Your task to perform on an android device: turn on location history Image 0: 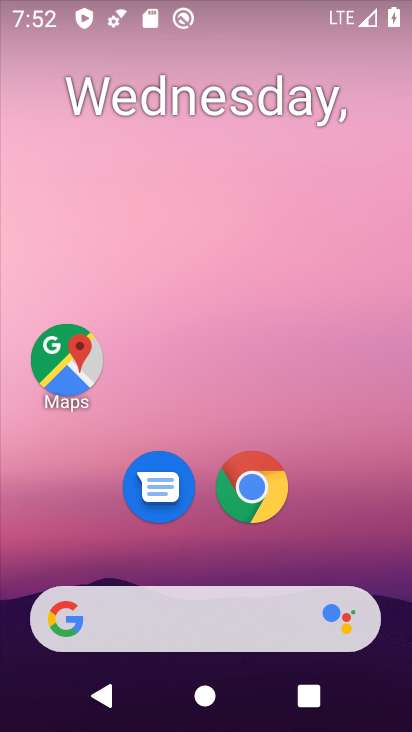
Step 0: click (62, 366)
Your task to perform on an android device: turn on location history Image 1: 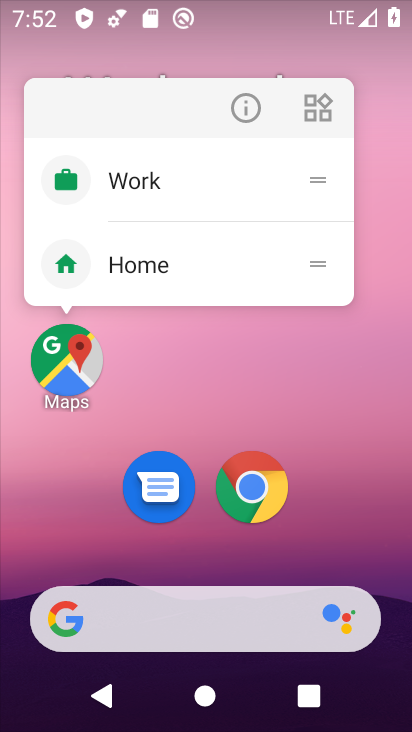
Step 1: click (62, 366)
Your task to perform on an android device: turn on location history Image 2: 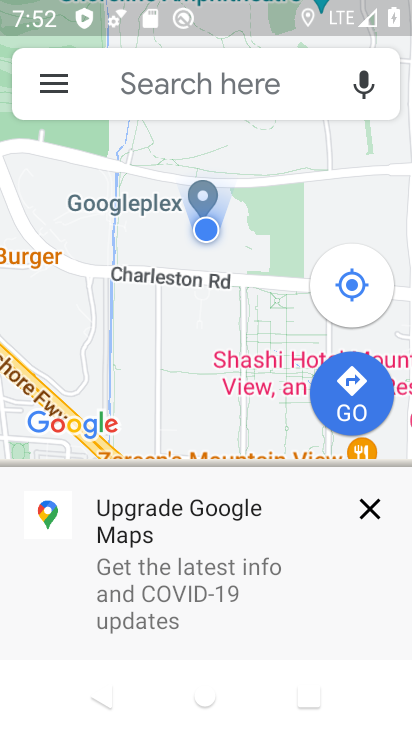
Step 2: click (42, 81)
Your task to perform on an android device: turn on location history Image 3: 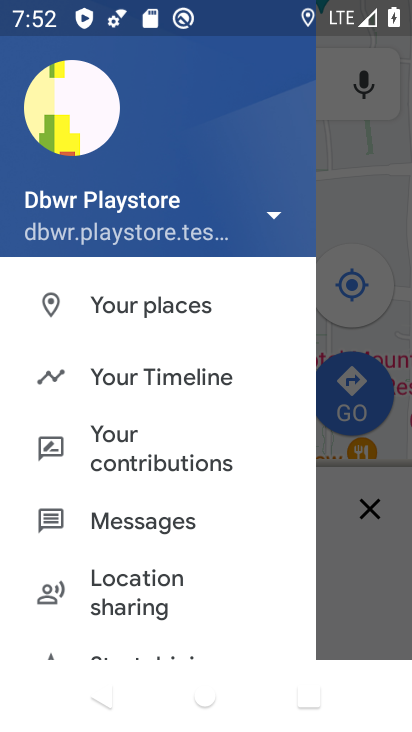
Step 3: click (125, 384)
Your task to perform on an android device: turn on location history Image 4: 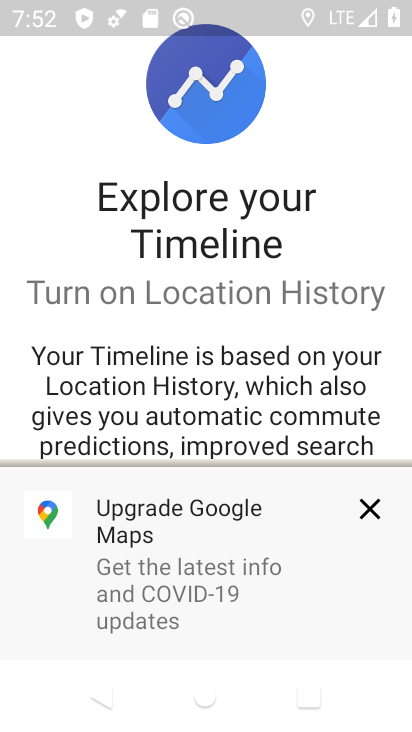
Step 4: click (361, 521)
Your task to perform on an android device: turn on location history Image 5: 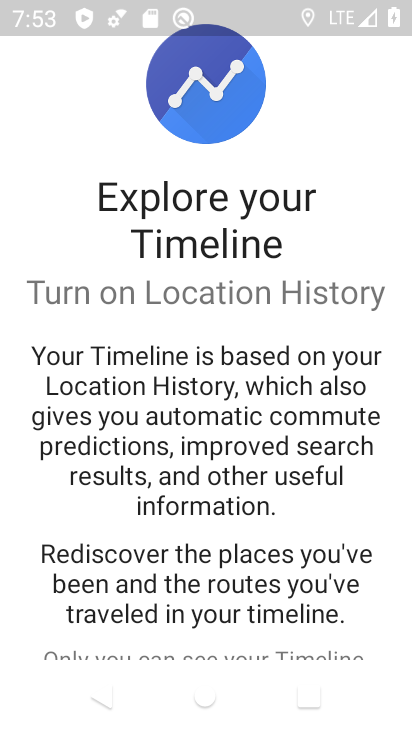
Step 5: drag from (249, 534) to (213, 153)
Your task to perform on an android device: turn on location history Image 6: 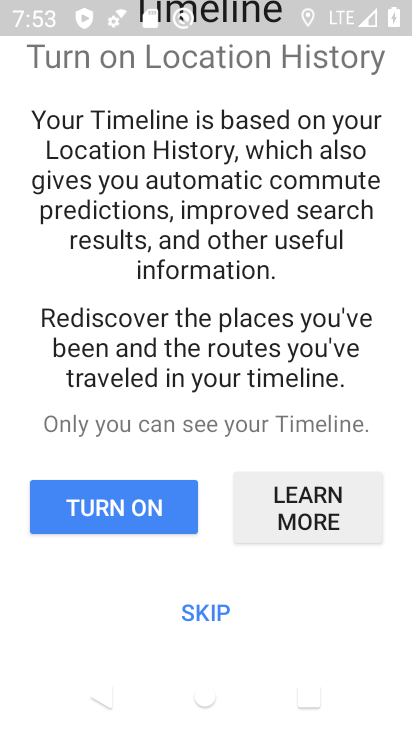
Step 6: click (199, 611)
Your task to perform on an android device: turn on location history Image 7: 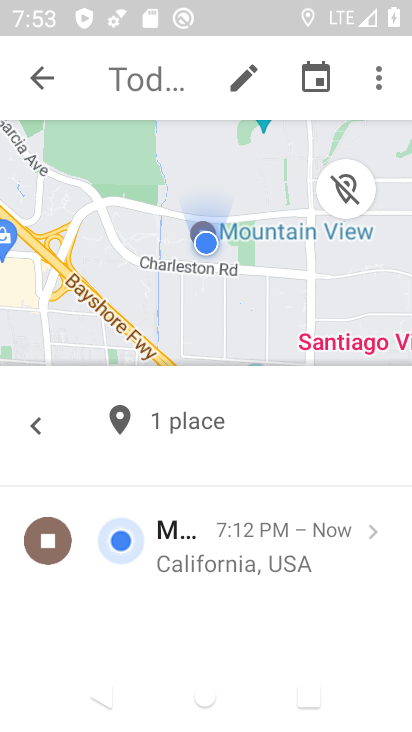
Step 7: click (383, 80)
Your task to perform on an android device: turn on location history Image 8: 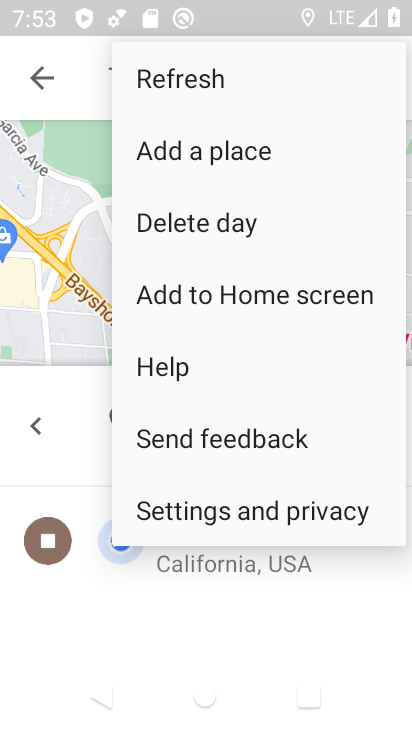
Step 8: click (200, 507)
Your task to perform on an android device: turn on location history Image 9: 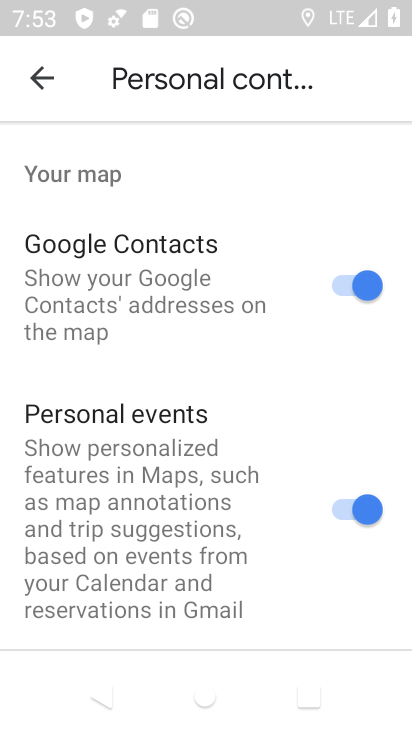
Step 9: drag from (194, 574) to (203, 147)
Your task to perform on an android device: turn on location history Image 10: 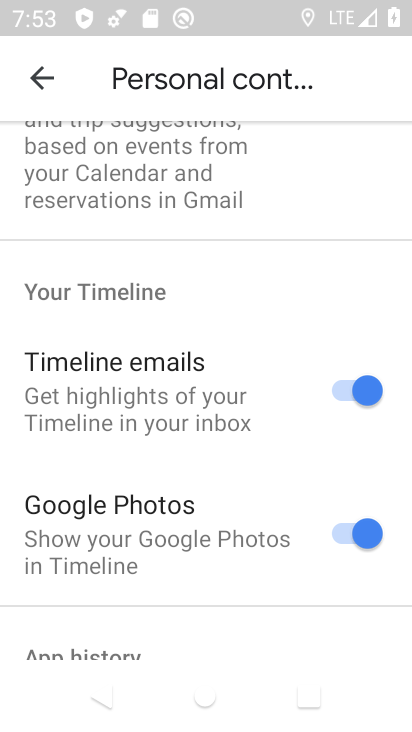
Step 10: drag from (177, 548) to (200, 147)
Your task to perform on an android device: turn on location history Image 11: 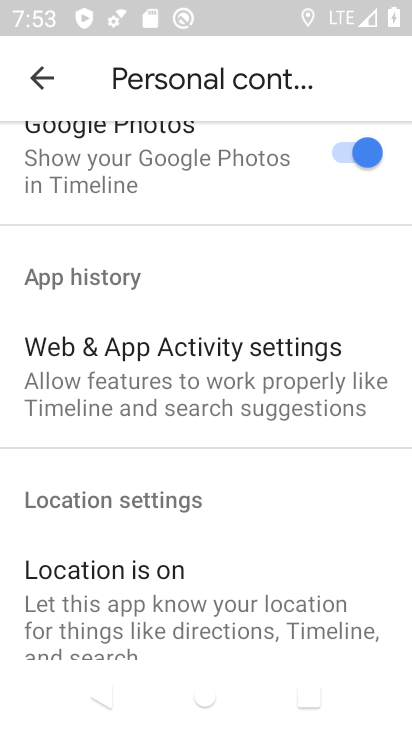
Step 11: drag from (131, 581) to (158, 207)
Your task to perform on an android device: turn on location history Image 12: 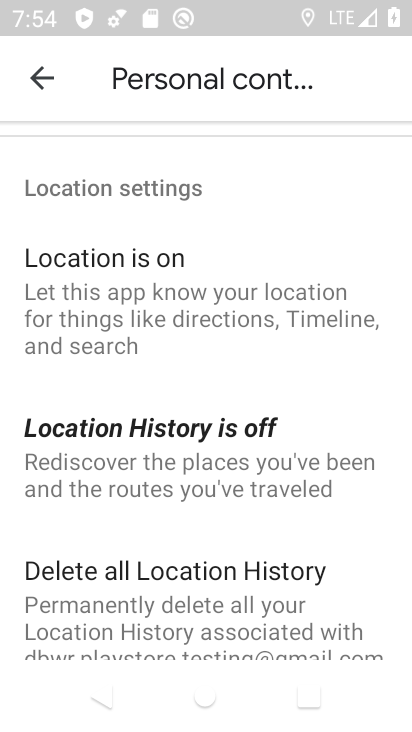
Step 12: click (135, 470)
Your task to perform on an android device: turn on location history Image 13: 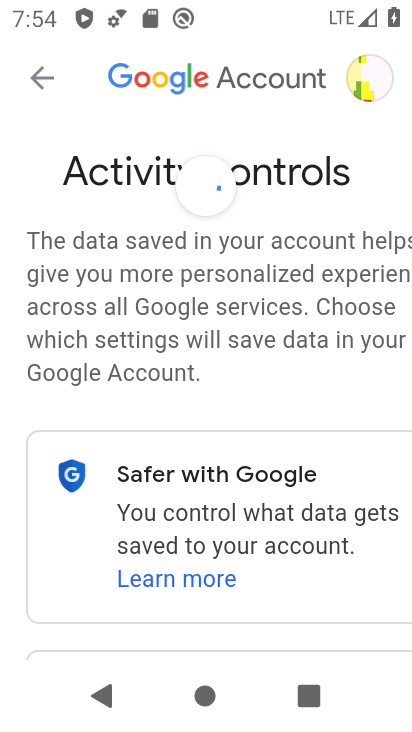
Step 13: drag from (205, 559) to (200, 203)
Your task to perform on an android device: turn on location history Image 14: 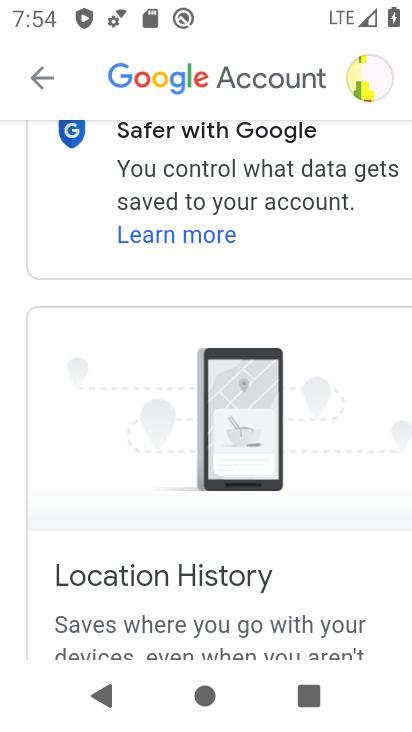
Step 14: drag from (155, 563) to (169, 191)
Your task to perform on an android device: turn on location history Image 15: 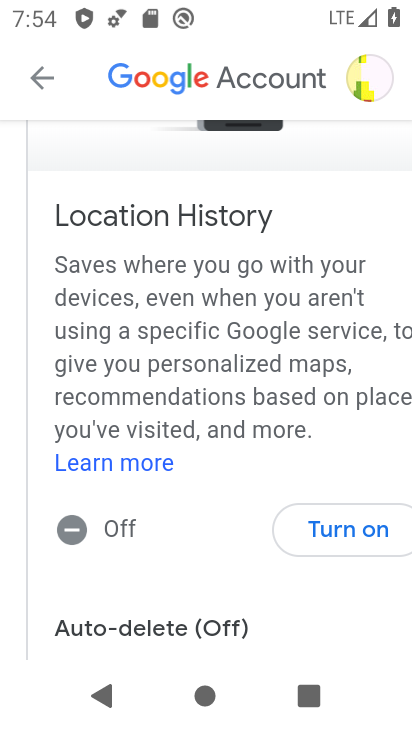
Step 15: click (324, 536)
Your task to perform on an android device: turn on location history Image 16: 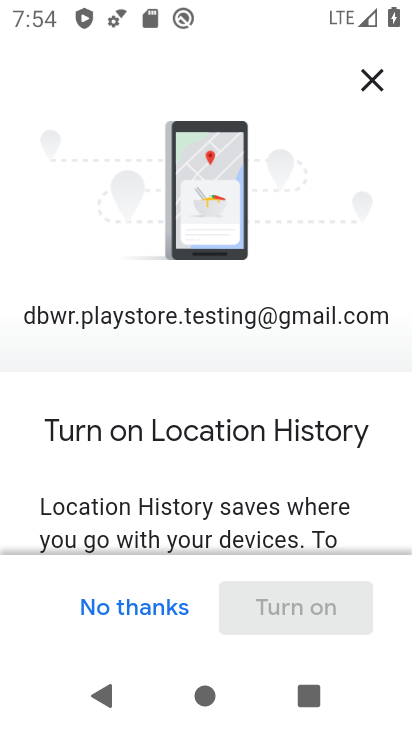
Step 16: drag from (142, 518) to (172, 82)
Your task to perform on an android device: turn on location history Image 17: 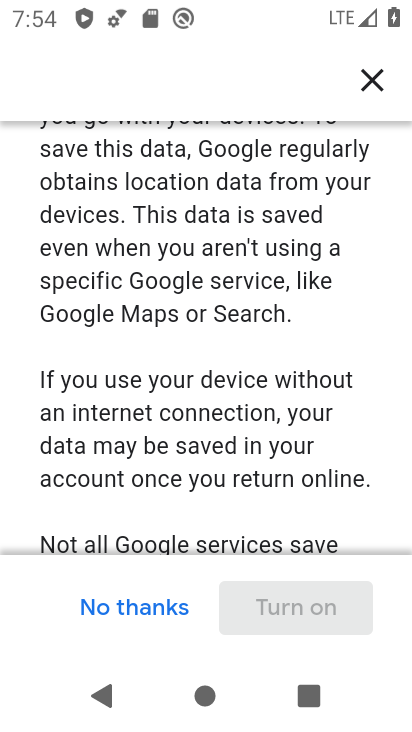
Step 17: drag from (145, 499) to (179, 95)
Your task to perform on an android device: turn on location history Image 18: 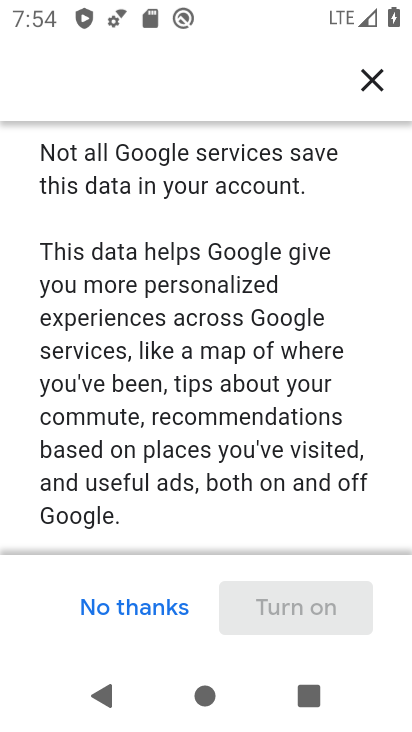
Step 18: drag from (145, 482) to (149, 97)
Your task to perform on an android device: turn on location history Image 19: 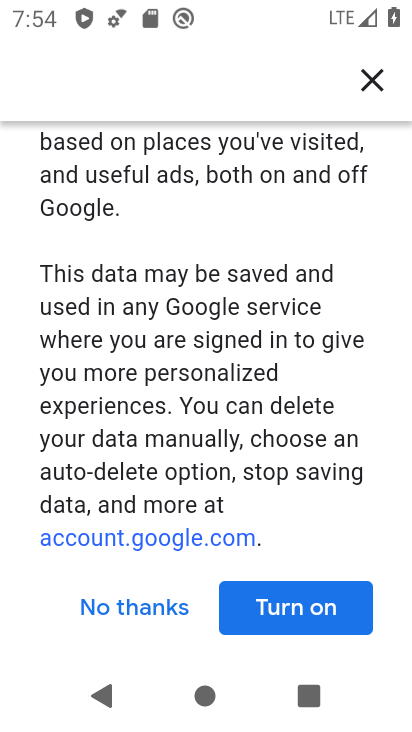
Step 19: drag from (179, 460) to (186, 199)
Your task to perform on an android device: turn on location history Image 20: 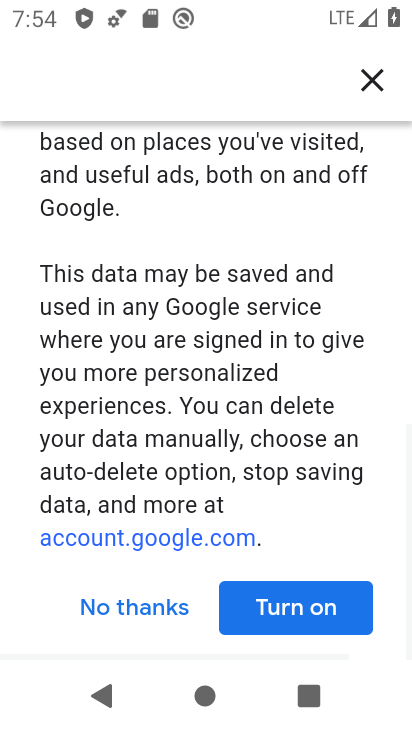
Step 20: click (277, 617)
Your task to perform on an android device: turn on location history Image 21: 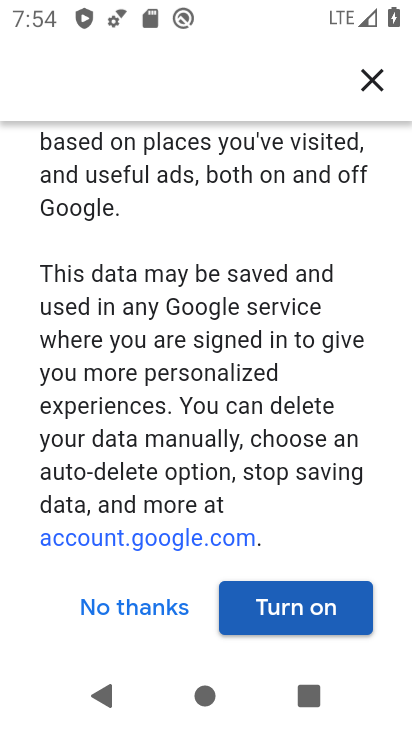
Step 21: click (296, 614)
Your task to perform on an android device: turn on location history Image 22: 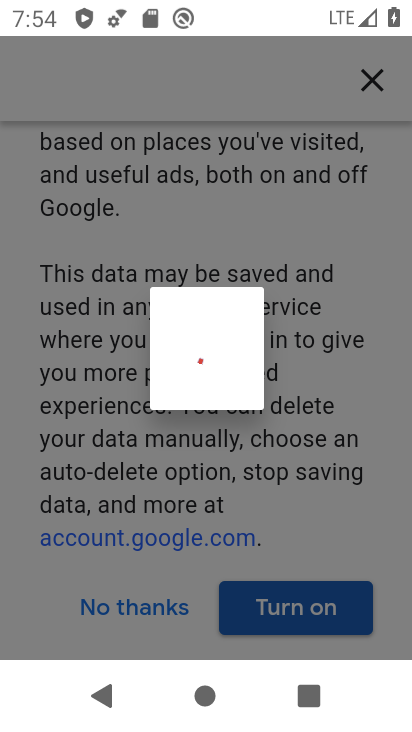
Step 22: drag from (195, 490) to (187, 326)
Your task to perform on an android device: turn on location history Image 23: 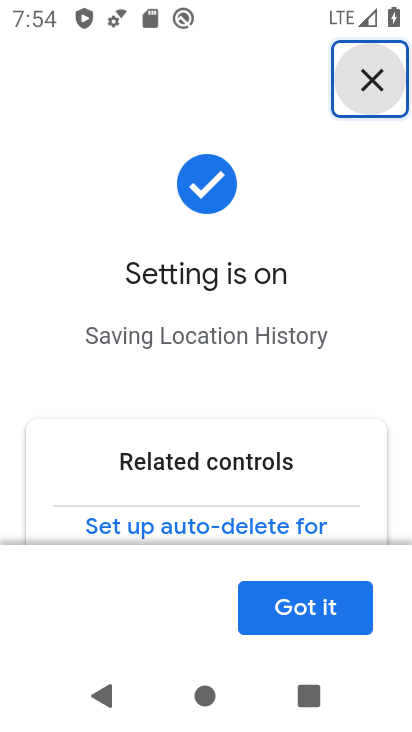
Step 23: click (265, 602)
Your task to perform on an android device: turn on location history Image 24: 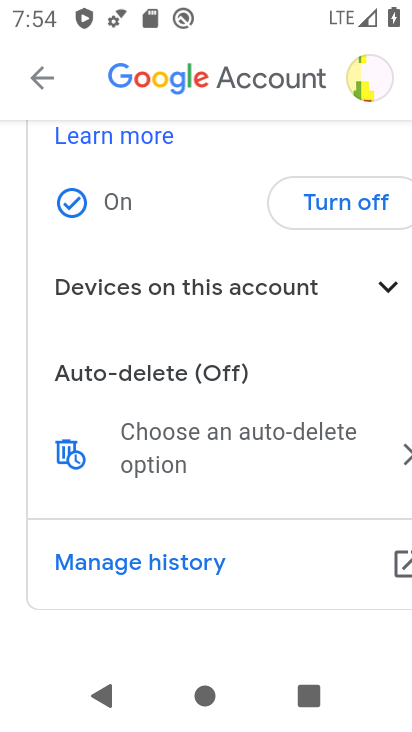
Step 24: task complete